Your task to perform on an android device: turn notification dots off Image 0: 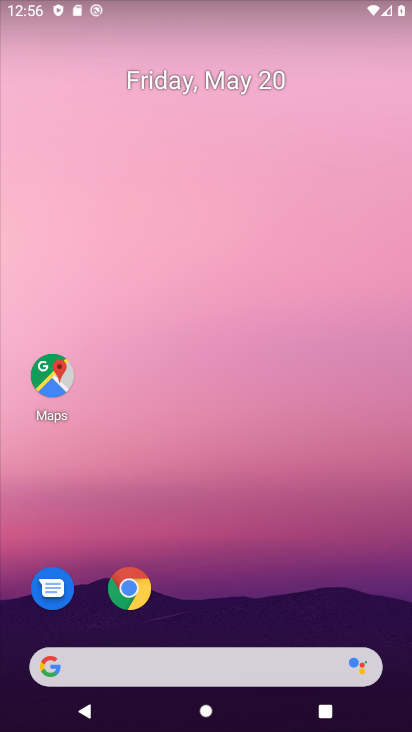
Step 0: drag from (177, 617) to (351, 74)
Your task to perform on an android device: turn notification dots off Image 1: 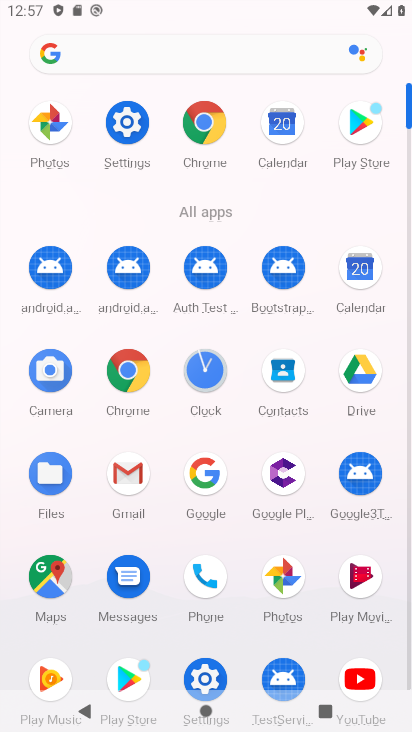
Step 1: click (125, 131)
Your task to perform on an android device: turn notification dots off Image 2: 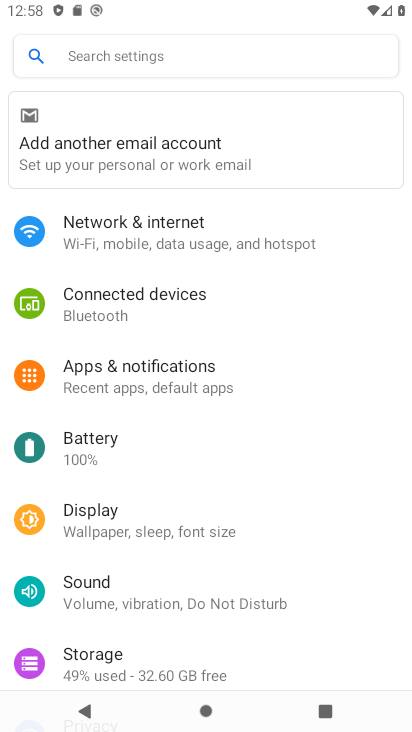
Step 2: click (88, 375)
Your task to perform on an android device: turn notification dots off Image 3: 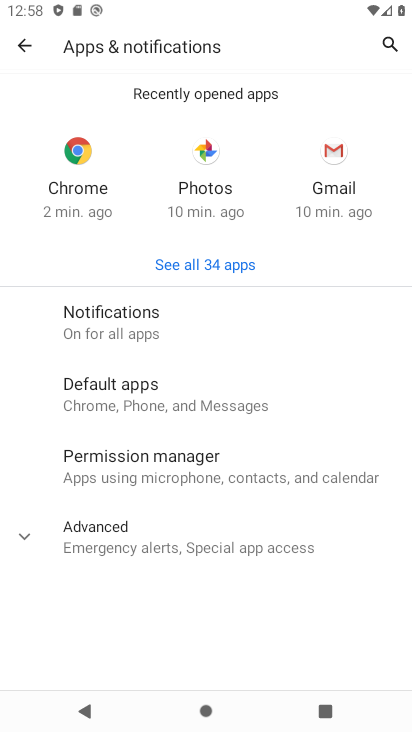
Step 3: click (102, 321)
Your task to perform on an android device: turn notification dots off Image 4: 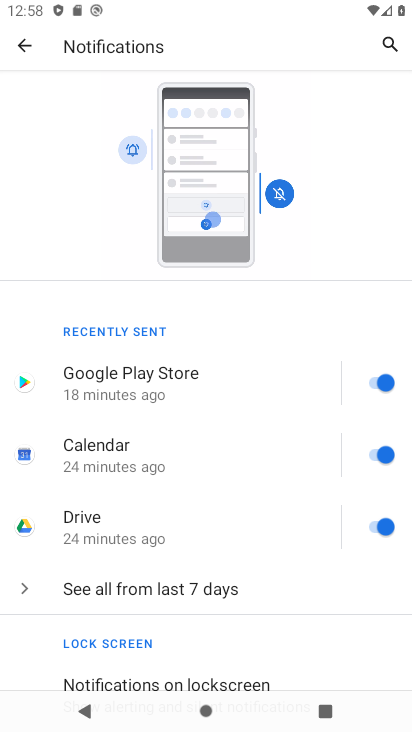
Step 4: drag from (158, 642) to (255, 142)
Your task to perform on an android device: turn notification dots off Image 5: 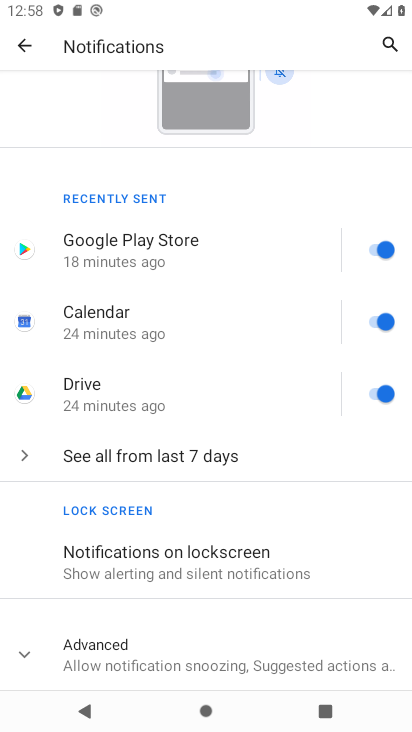
Step 5: click (270, 565)
Your task to perform on an android device: turn notification dots off Image 6: 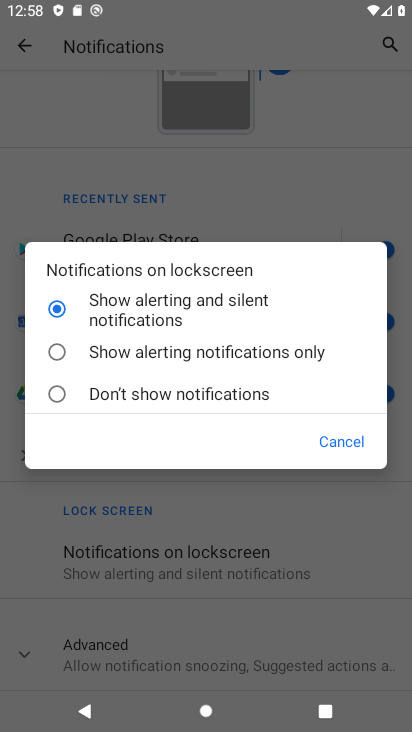
Step 6: click (343, 442)
Your task to perform on an android device: turn notification dots off Image 7: 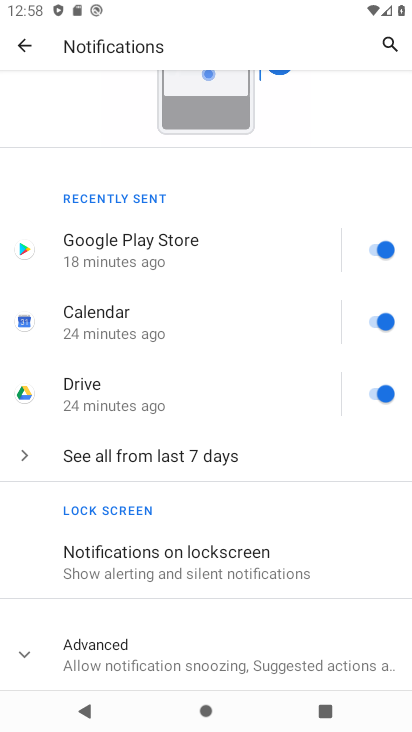
Step 7: click (177, 648)
Your task to perform on an android device: turn notification dots off Image 8: 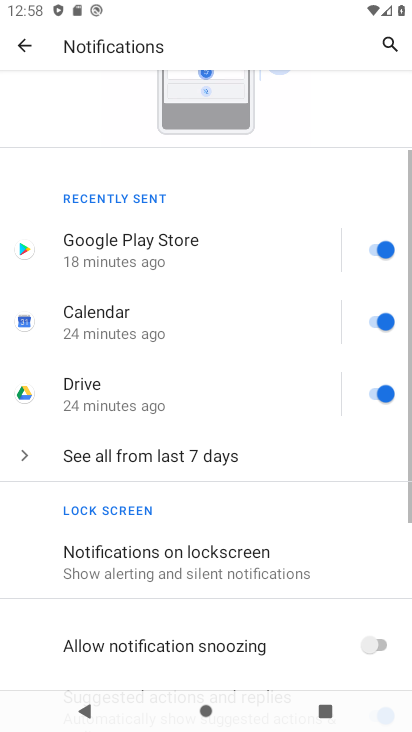
Step 8: drag from (177, 648) to (243, 276)
Your task to perform on an android device: turn notification dots off Image 9: 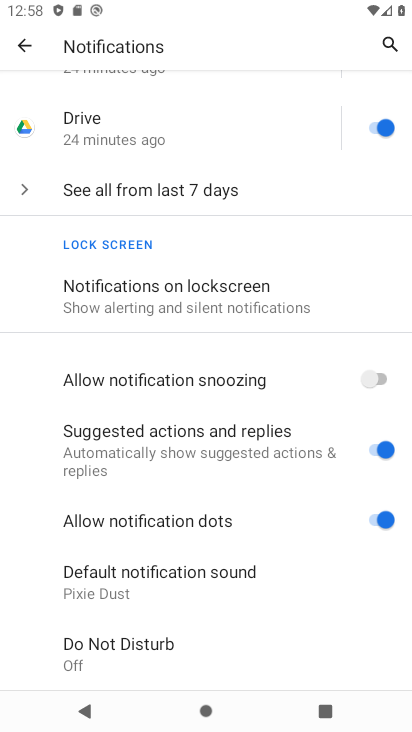
Step 9: click (377, 526)
Your task to perform on an android device: turn notification dots off Image 10: 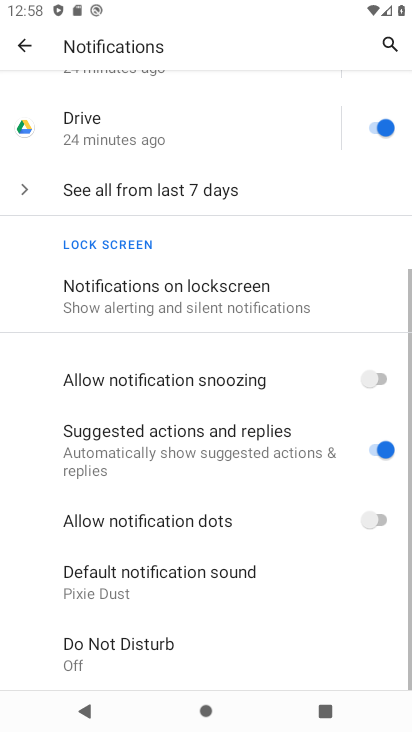
Step 10: task complete